Your task to perform on an android device: Search for Mexican restaurants on Maps Image 0: 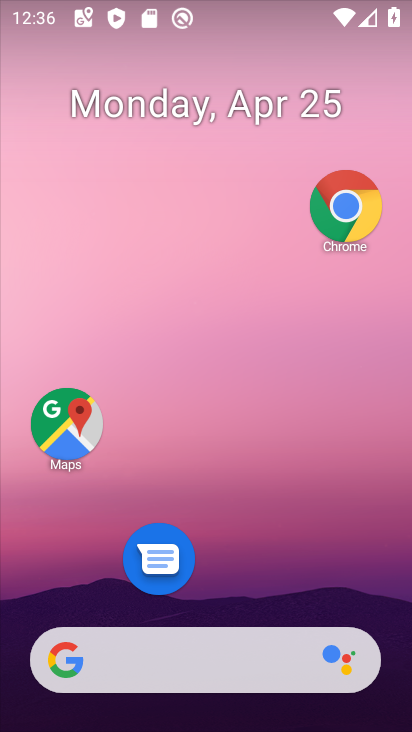
Step 0: click (64, 420)
Your task to perform on an android device: Search for Mexican restaurants on Maps Image 1: 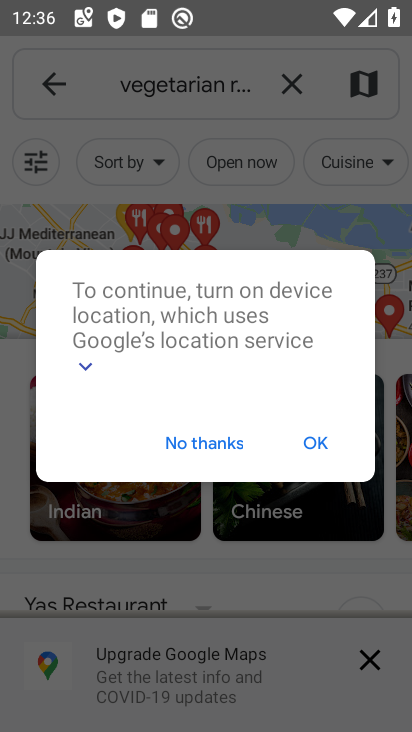
Step 1: click (292, 83)
Your task to perform on an android device: Search for Mexican restaurants on Maps Image 2: 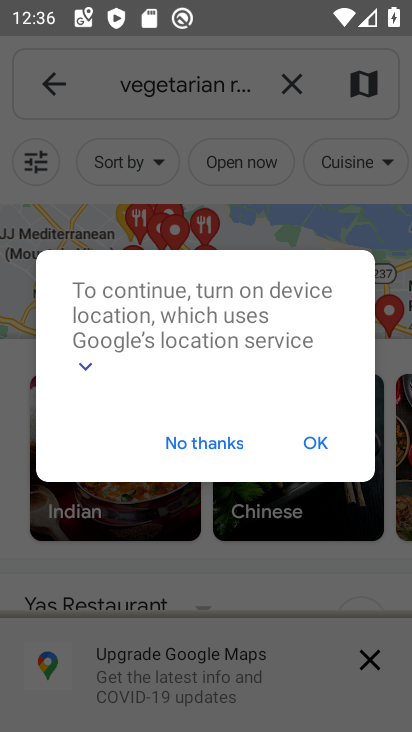
Step 2: click (221, 439)
Your task to perform on an android device: Search for Mexican restaurants on Maps Image 3: 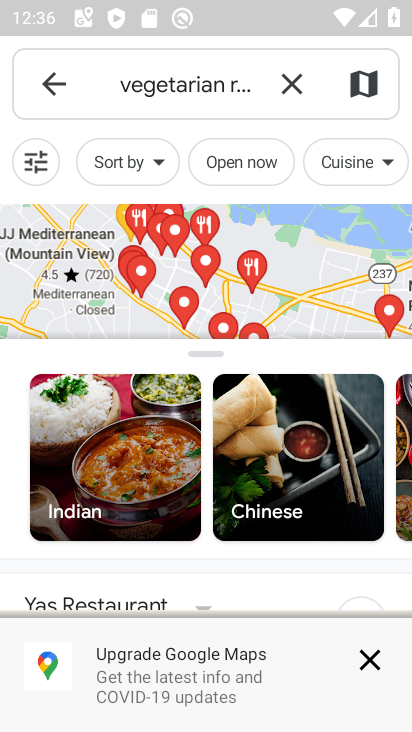
Step 3: click (288, 79)
Your task to perform on an android device: Search for Mexican restaurants on Maps Image 4: 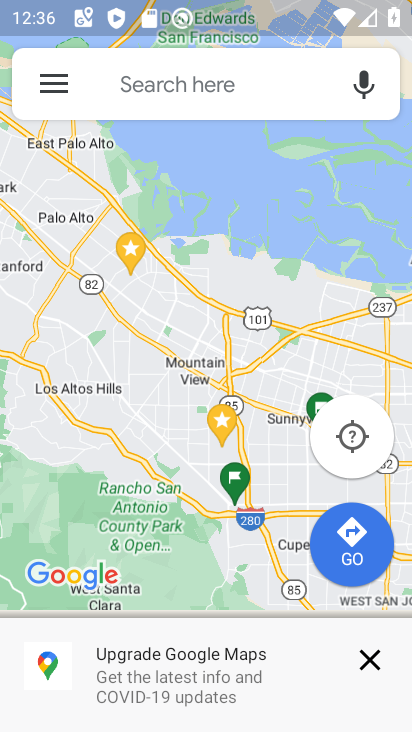
Step 4: click (190, 81)
Your task to perform on an android device: Search for Mexican restaurants on Maps Image 5: 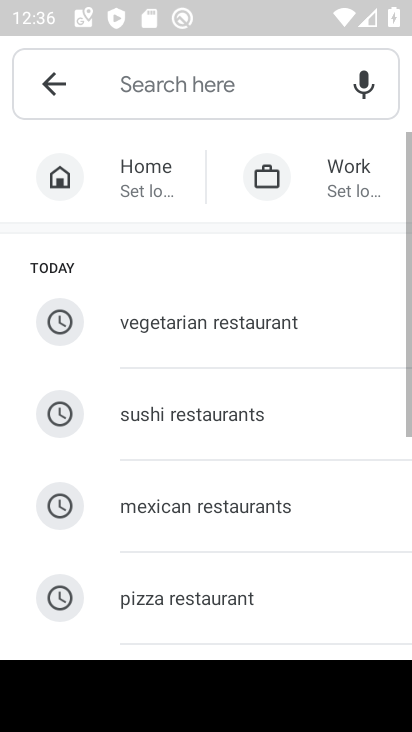
Step 5: click (168, 482)
Your task to perform on an android device: Search for Mexican restaurants on Maps Image 6: 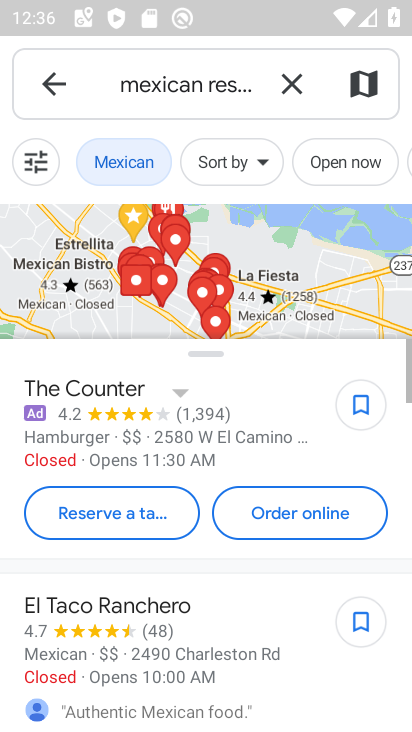
Step 6: task complete